Your task to perform on an android device: toggle translation in the chrome app Image 0: 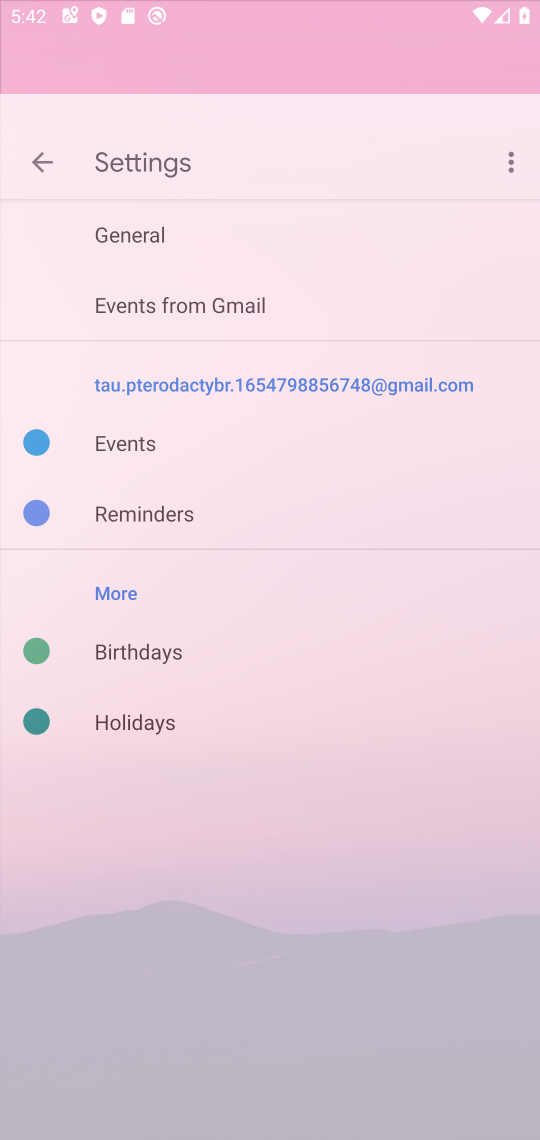
Step 0: press home button
Your task to perform on an android device: toggle translation in the chrome app Image 1: 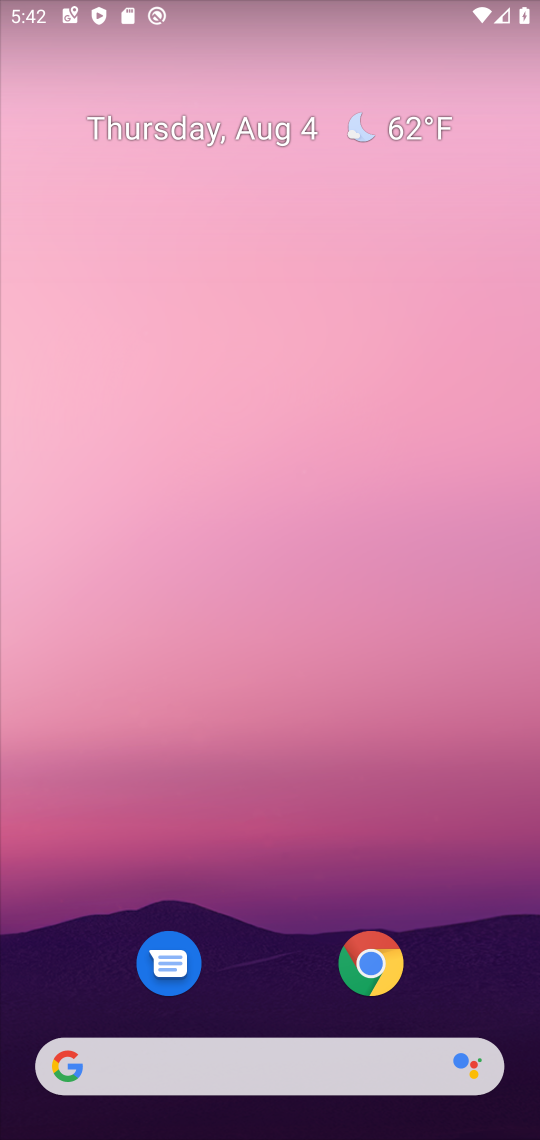
Step 1: click (373, 970)
Your task to perform on an android device: toggle translation in the chrome app Image 2: 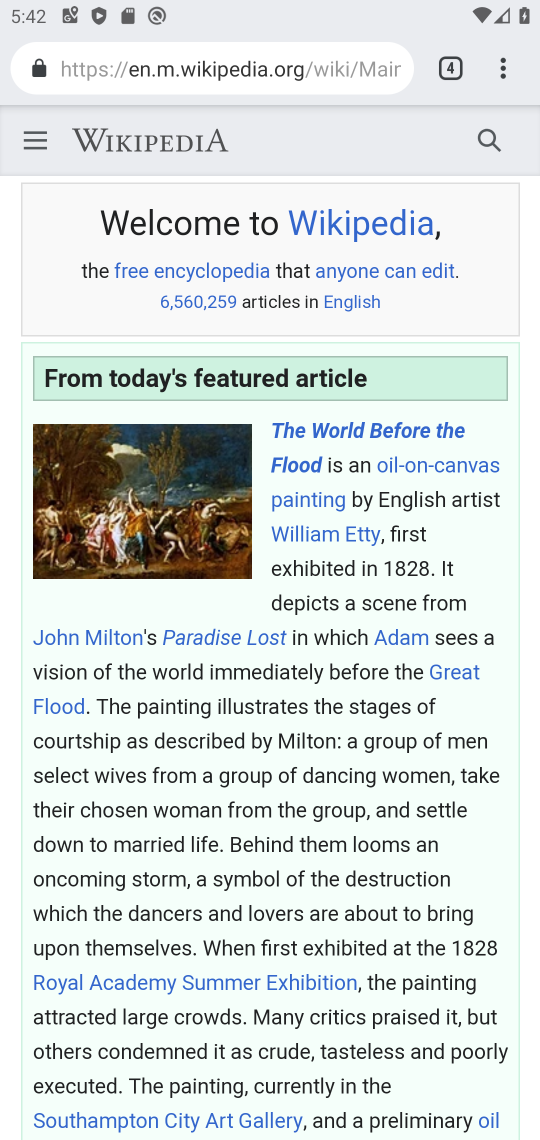
Step 2: click (503, 71)
Your task to perform on an android device: toggle translation in the chrome app Image 3: 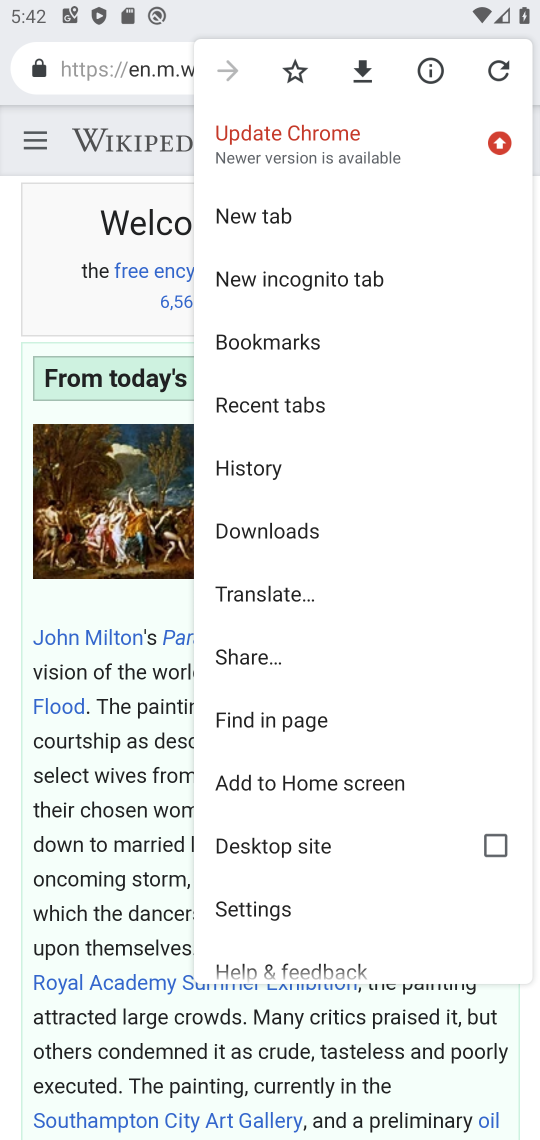
Step 3: click (252, 902)
Your task to perform on an android device: toggle translation in the chrome app Image 4: 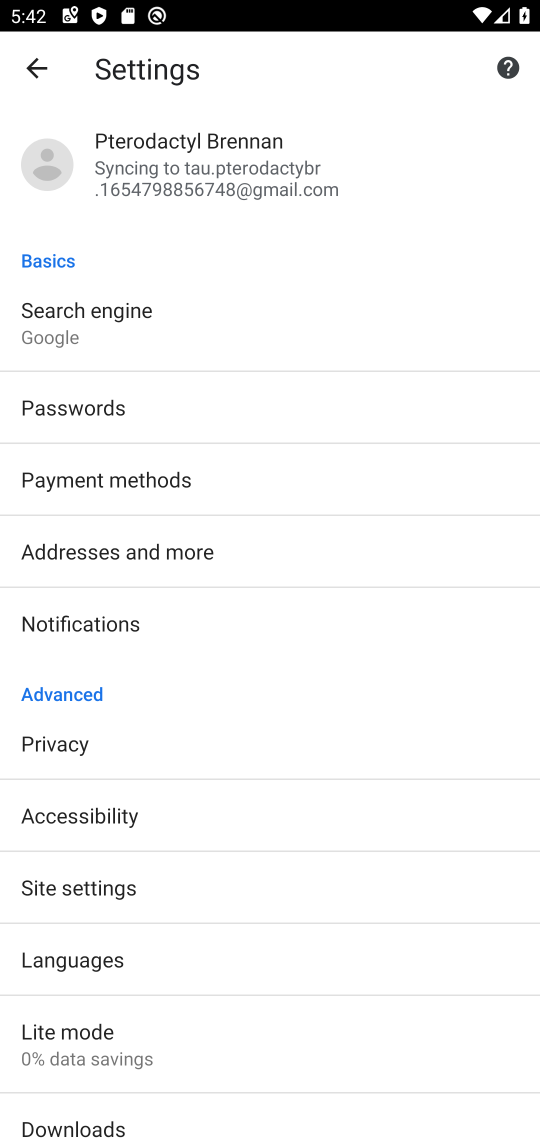
Step 4: click (81, 959)
Your task to perform on an android device: toggle translation in the chrome app Image 5: 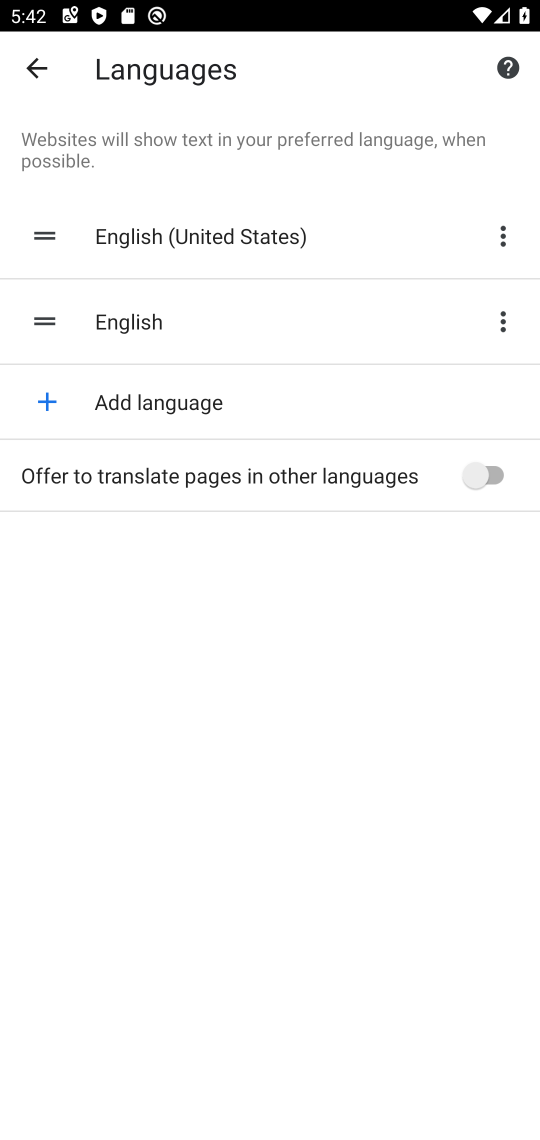
Step 5: click (487, 478)
Your task to perform on an android device: toggle translation in the chrome app Image 6: 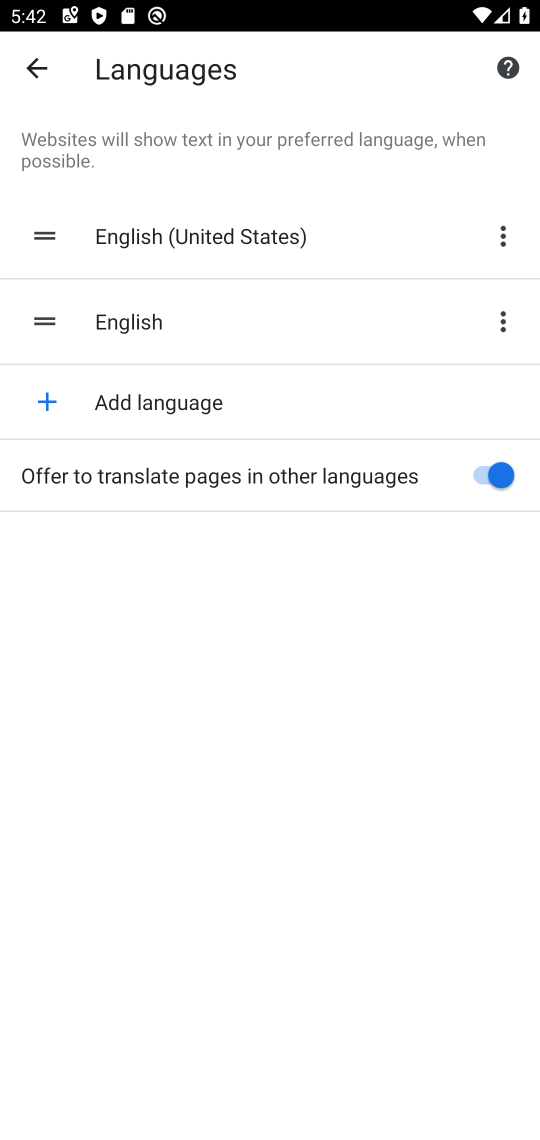
Step 6: task complete